Your task to perform on an android device: visit the assistant section in the google photos Image 0: 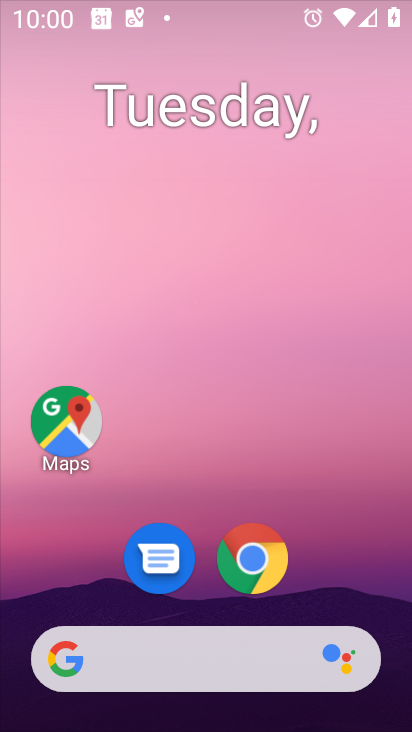
Step 0: drag from (326, 566) to (155, 262)
Your task to perform on an android device: visit the assistant section in the google photos Image 1: 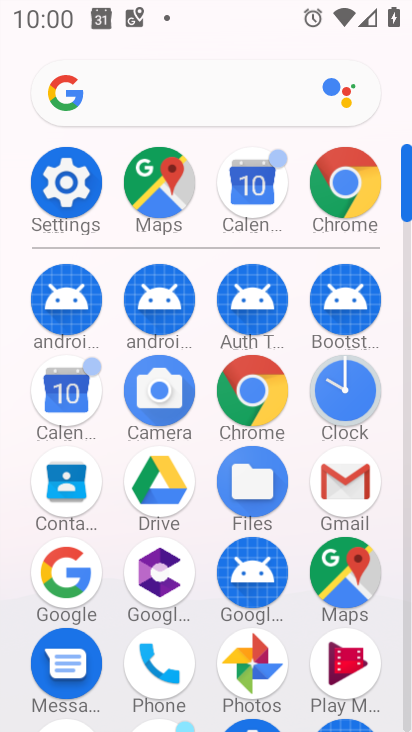
Step 1: click (246, 661)
Your task to perform on an android device: visit the assistant section in the google photos Image 2: 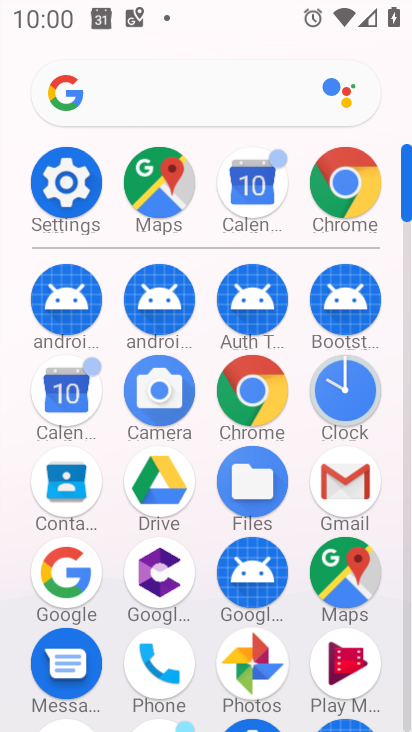
Step 2: click (246, 661)
Your task to perform on an android device: visit the assistant section in the google photos Image 3: 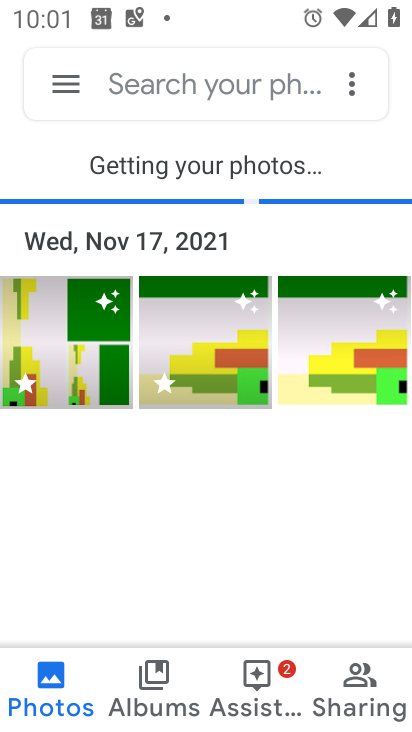
Step 3: click (253, 688)
Your task to perform on an android device: visit the assistant section in the google photos Image 4: 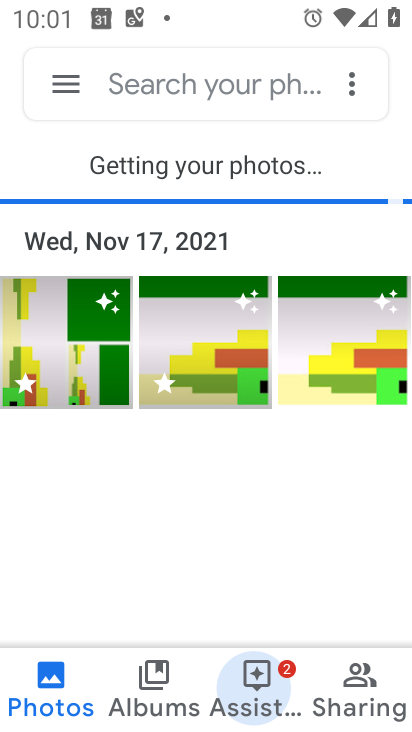
Step 4: click (254, 688)
Your task to perform on an android device: visit the assistant section in the google photos Image 5: 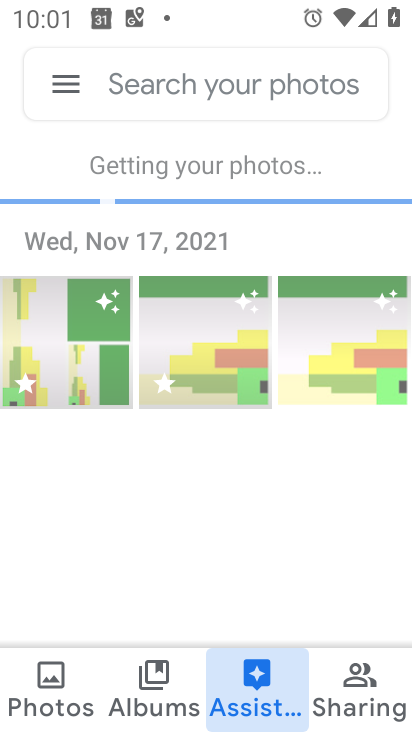
Step 5: click (254, 688)
Your task to perform on an android device: visit the assistant section in the google photos Image 6: 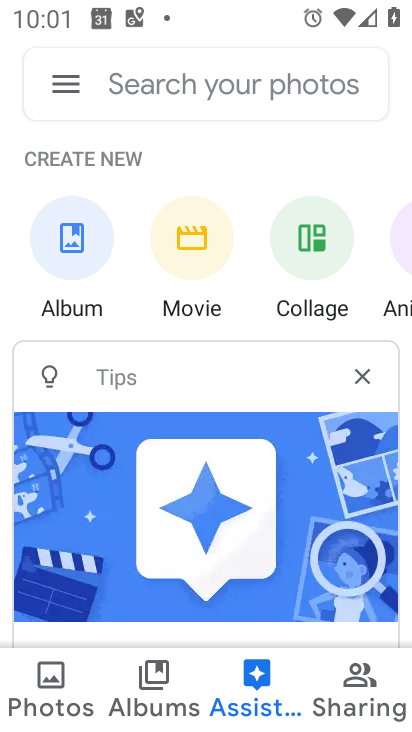
Step 6: task complete